Your task to perform on an android device: turn vacation reply on in the gmail app Image 0: 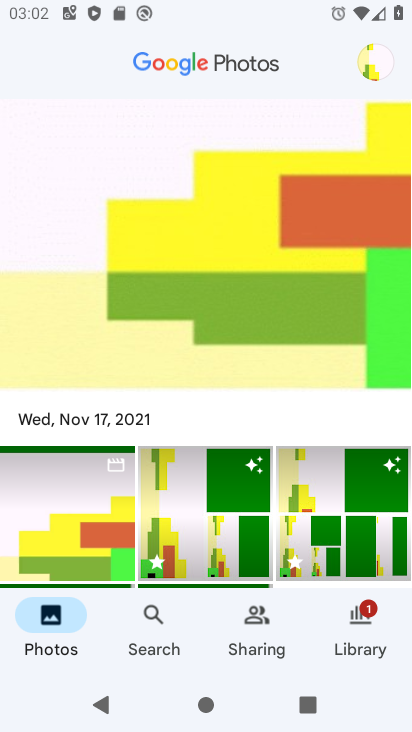
Step 0: press home button
Your task to perform on an android device: turn vacation reply on in the gmail app Image 1: 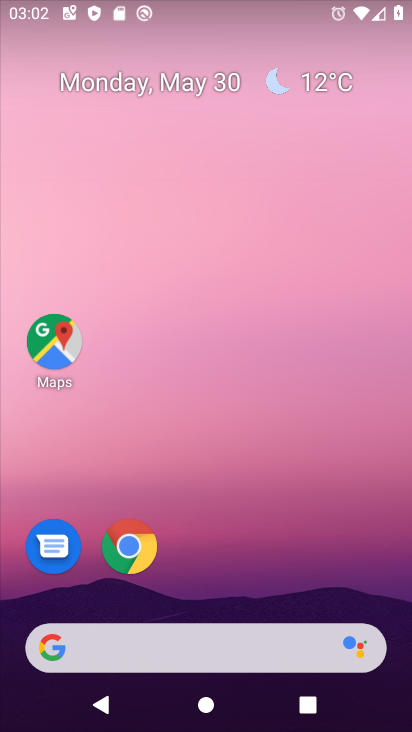
Step 1: drag from (226, 575) to (248, 93)
Your task to perform on an android device: turn vacation reply on in the gmail app Image 2: 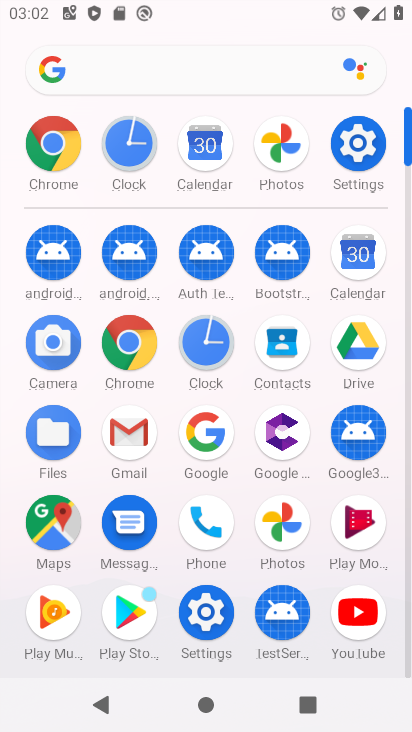
Step 2: click (125, 419)
Your task to perform on an android device: turn vacation reply on in the gmail app Image 3: 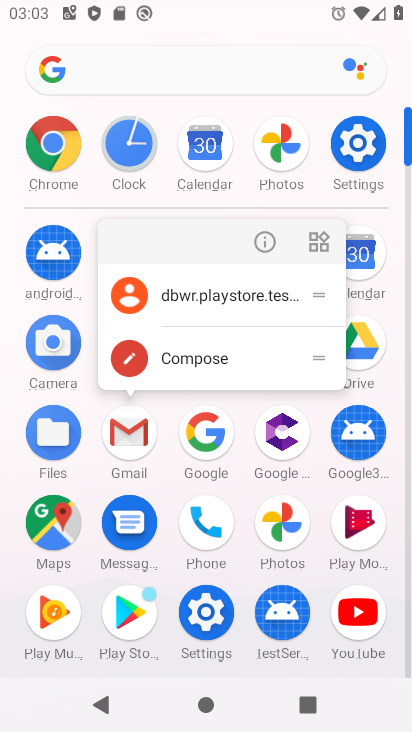
Step 3: click (122, 425)
Your task to perform on an android device: turn vacation reply on in the gmail app Image 4: 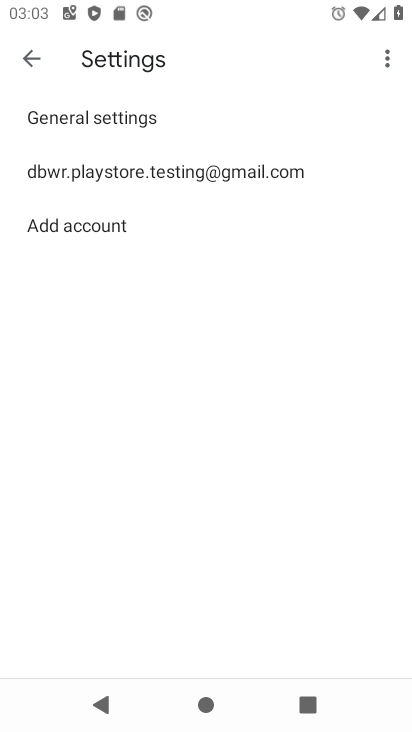
Step 4: click (280, 169)
Your task to perform on an android device: turn vacation reply on in the gmail app Image 5: 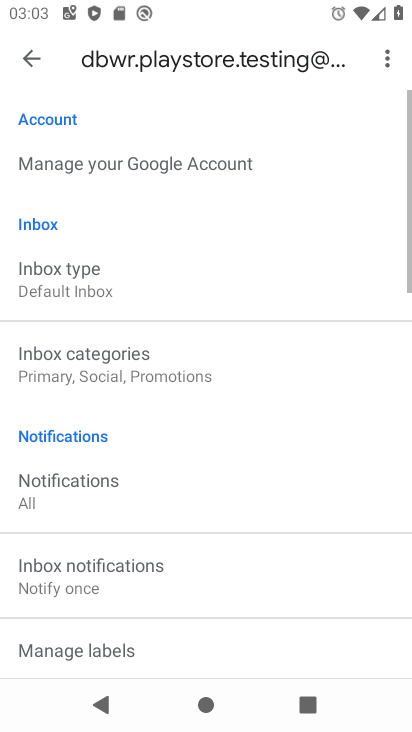
Step 5: drag from (176, 651) to (224, 55)
Your task to perform on an android device: turn vacation reply on in the gmail app Image 6: 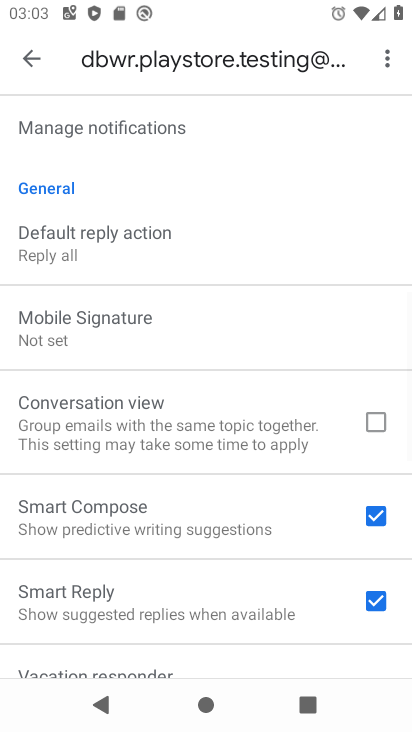
Step 6: drag from (243, 612) to (251, 165)
Your task to perform on an android device: turn vacation reply on in the gmail app Image 7: 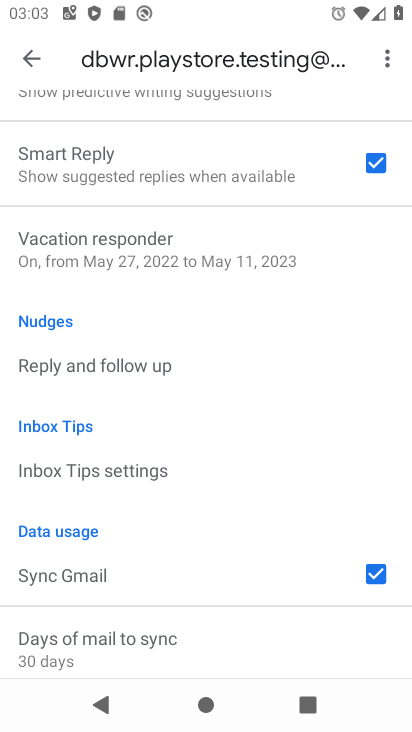
Step 7: click (185, 251)
Your task to perform on an android device: turn vacation reply on in the gmail app Image 8: 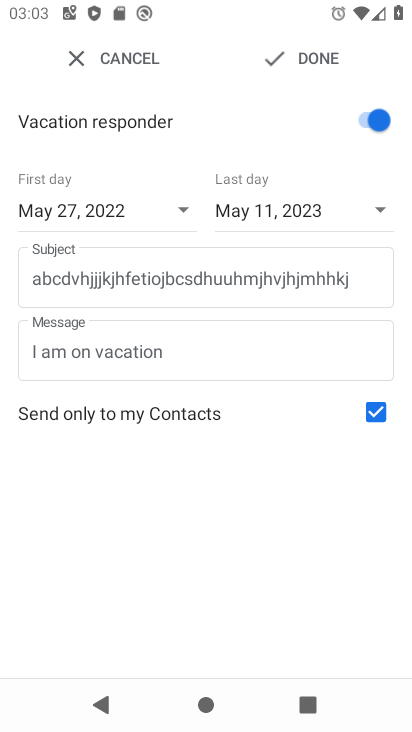
Step 8: task complete